Your task to perform on an android device: Open sound settings Image 0: 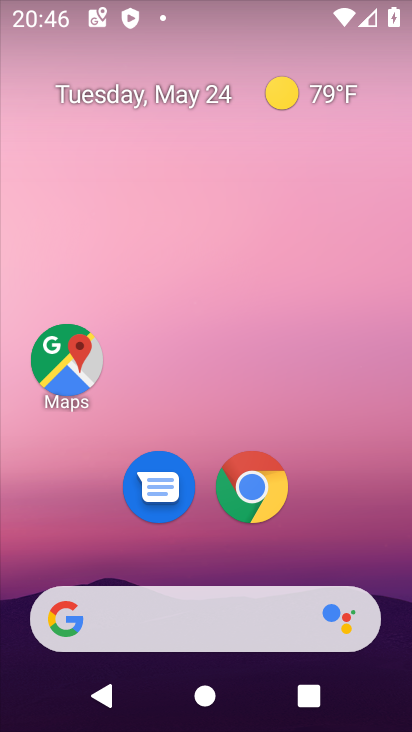
Step 0: press home button
Your task to perform on an android device: Open sound settings Image 1: 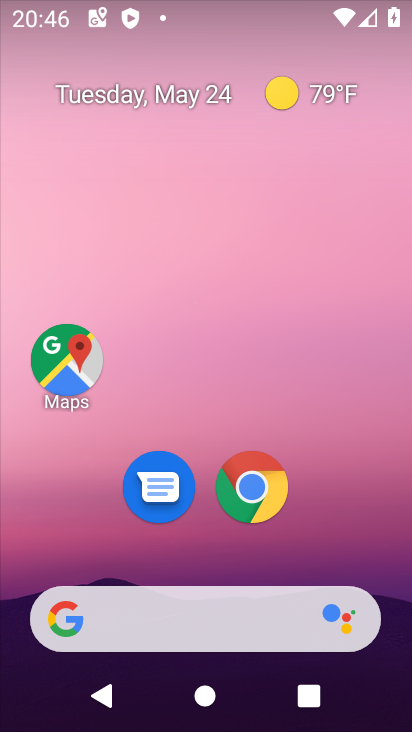
Step 1: drag from (359, 496) to (293, 0)
Your task to perform on an android device: Open sound settings Image 2: 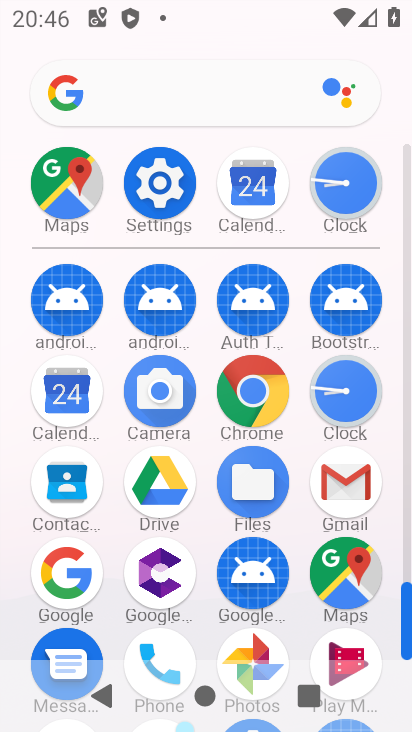
Step 2: click (148, 176)
Your task to perform on an android device: Open sound settings Image 3: 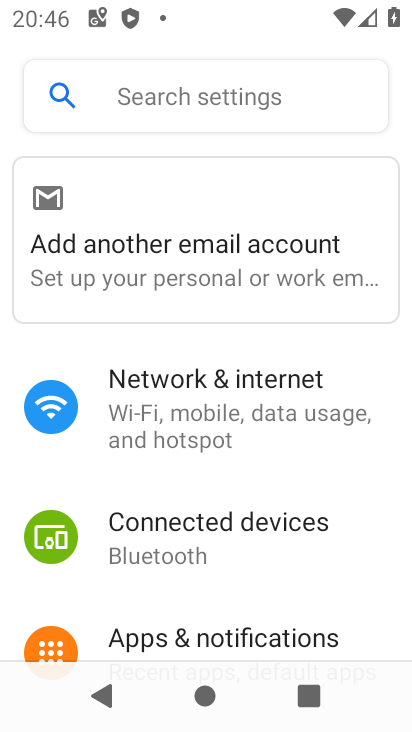
Step 3: drag from (310, 611) to (308, 188)
Your task to perform on an android device: Open sound settings Image 4: 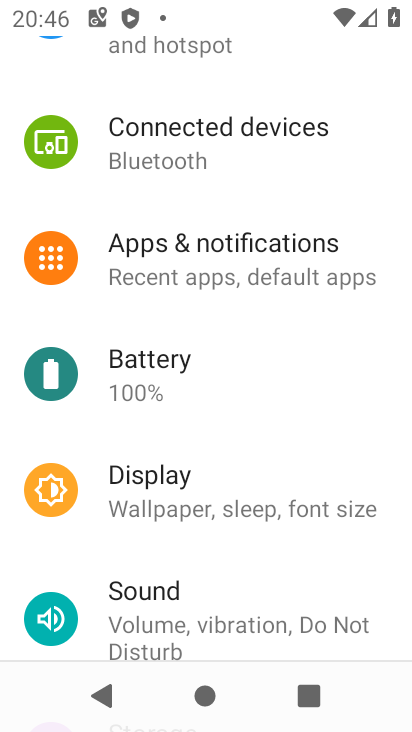
Step 4: click (160, 590)
Your task to perform on an android device: Open sound settings Image 5: 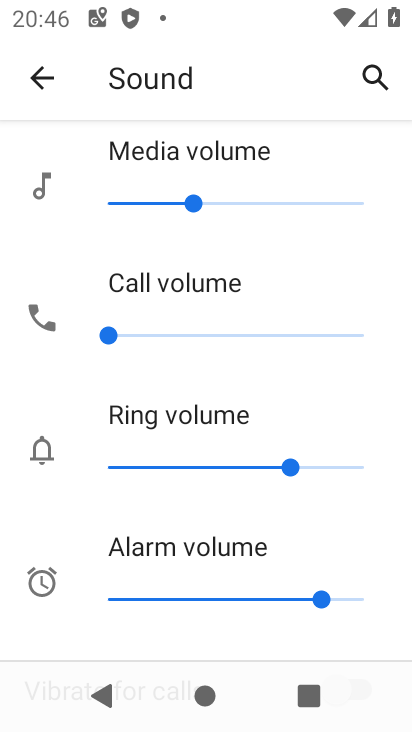
Step 5: task complete